Your task to perform on an android device: set default search engine in the chrome app Image 0: 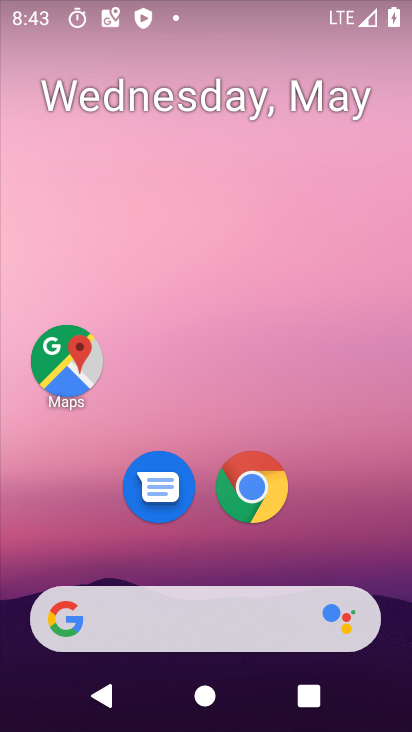
Step 0: click (242, 497)
Your task to perform on an android device: set default search engine in the chrome app Image 1: 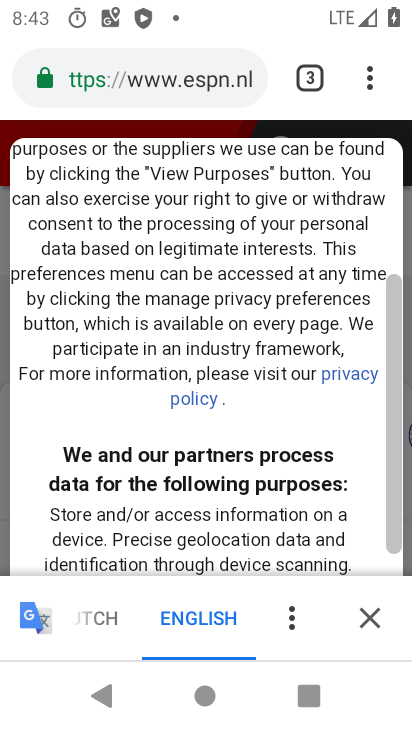
Step 1: drag from (359, 81) to (124, 534)
Your task to perform on an android device: set default search engine in the chrome app Image 2: 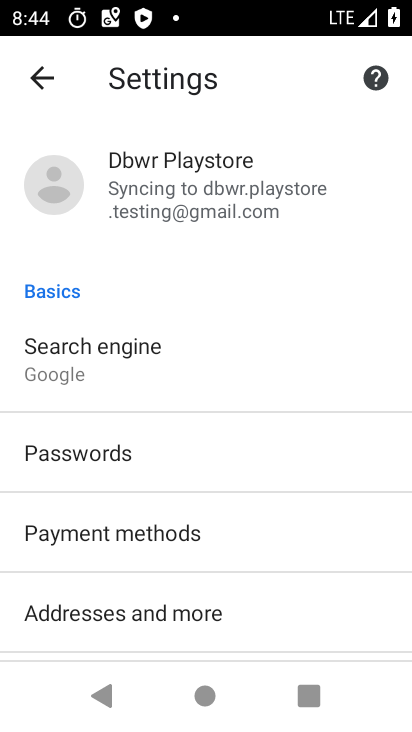
Step 2: drag from (152, 505) to (228, 312)
Your task to perform on an android device: set default search engine in the chrome app Image 3: 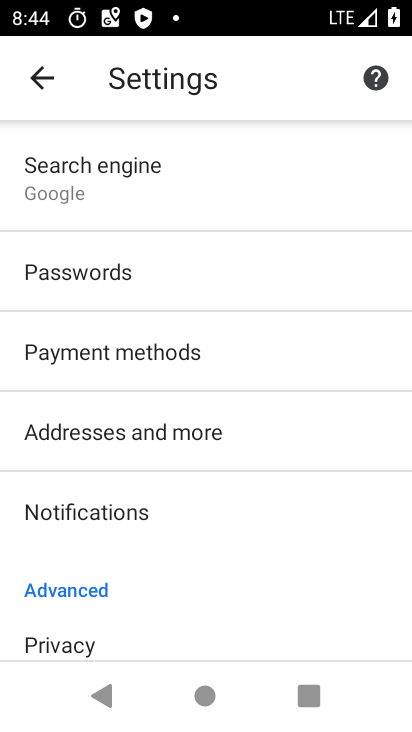
Step 3: drag from (156, 485) to (240, 240)
Your task to perform on an android device: set default search engine in the chrome app Image 4: 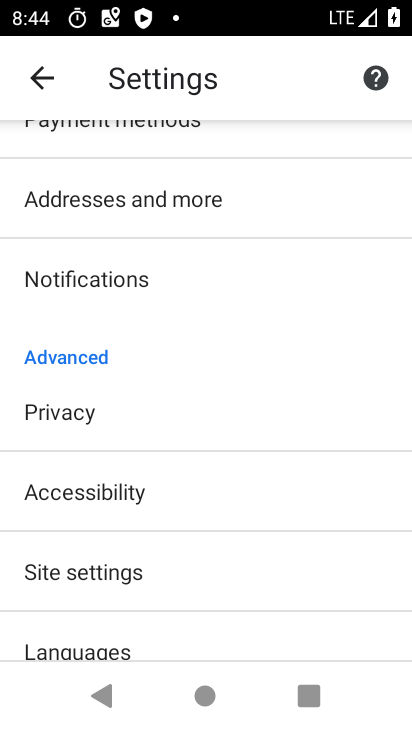
Step 4: drag from (191, 257) to (192, 545)
Your task to perform on an android device: set default search engine in the chrome app Image 5: 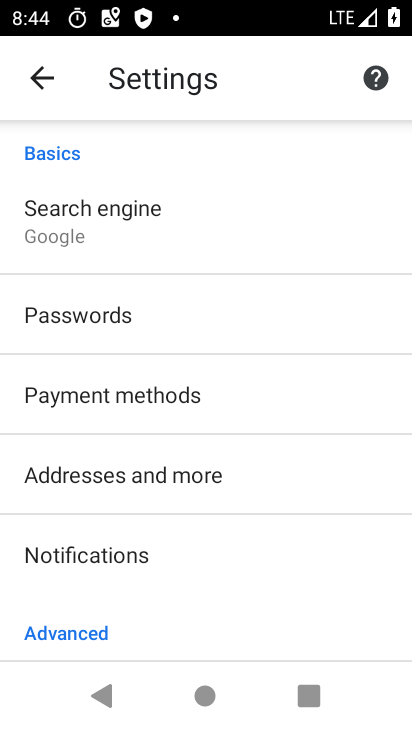
Step 5: click (118, 248)
Your task to perform on an android device: set default search engine in the chrome app Image 6: 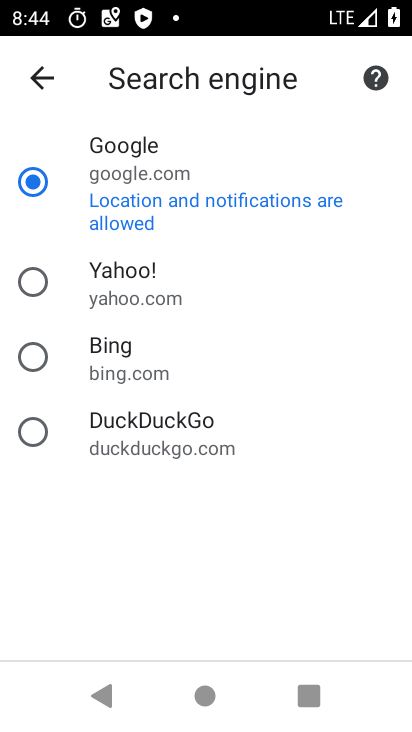
Step 6: click (107, 294)
Your task to perform on an android device: set default search engine in the chrome app Image 7: 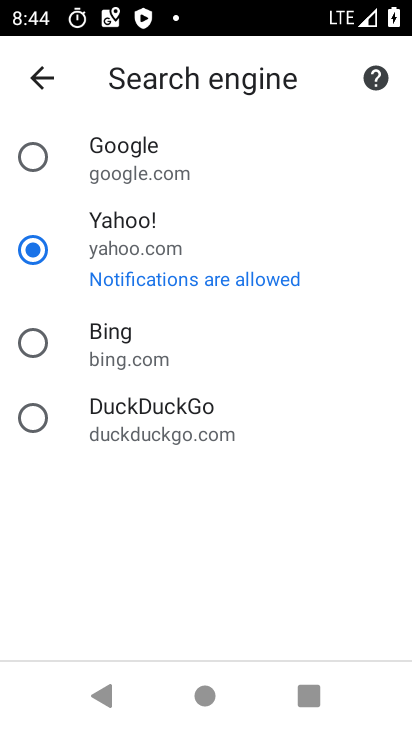
Step 7: task complete